Your task to perform on an android device: Open calendar and show me the third week of next month Image 0: 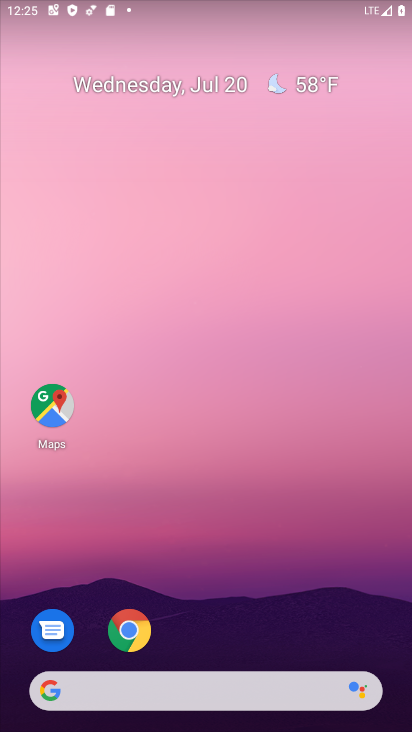
Step 0: drag from (208, 651) to (229, 199)
Your task to perform on an android device: Open calendar and show me the third week of next month Image 1: 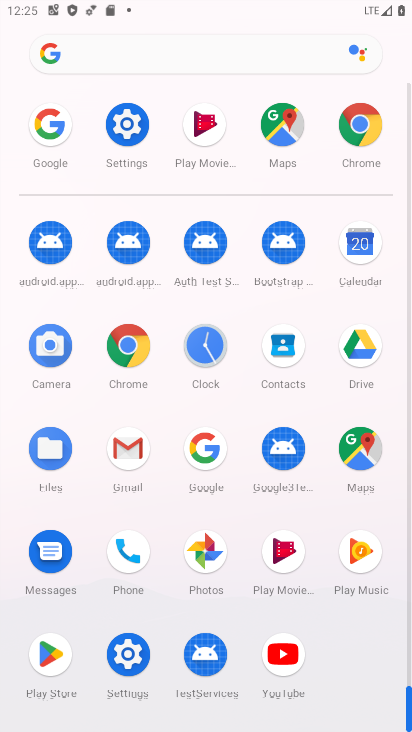
Step 1: click (361, 254)
Your task to perform on an android device: Open calendar and show me the third week of next month Image 2: 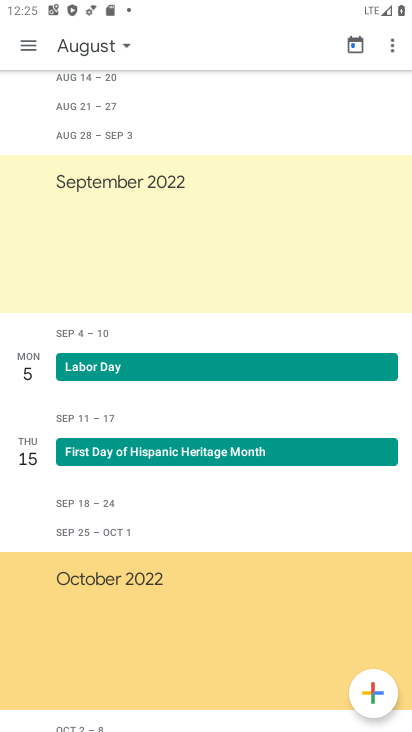
Step 2: click (108, 38)
Your task to perform on an android device: Open calendar and show me the third week of next month Image 3: 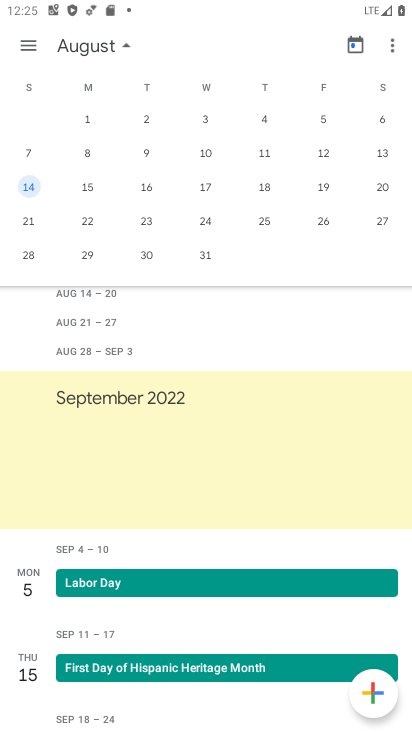
Step 3: click (27, 191)
Your task to perform on an android device: Open calendar and show me the third week of next month Image 4: 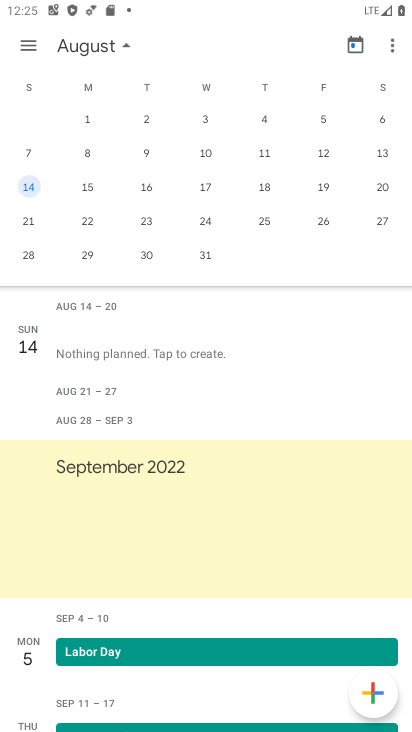
Step 4: click (27, 191)
Your task to perform on an android device: Open calendar and show me the third week of next month Image 5: 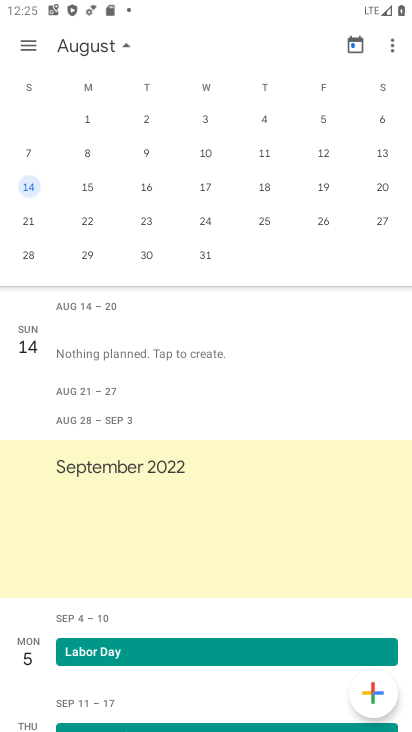
Step 5: task complete